Your task to perform on an android device: Open accessibility settings Image 0: 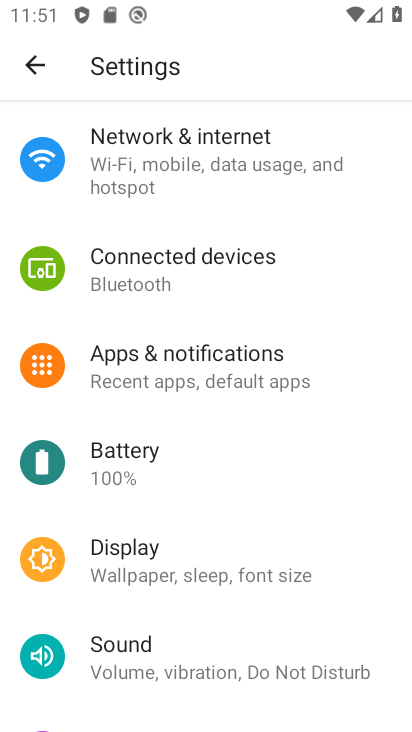
Step 0: drag from (142, 610) to (264, 118)
Your task to perform on an android device: Open accessibility settings Image 1: 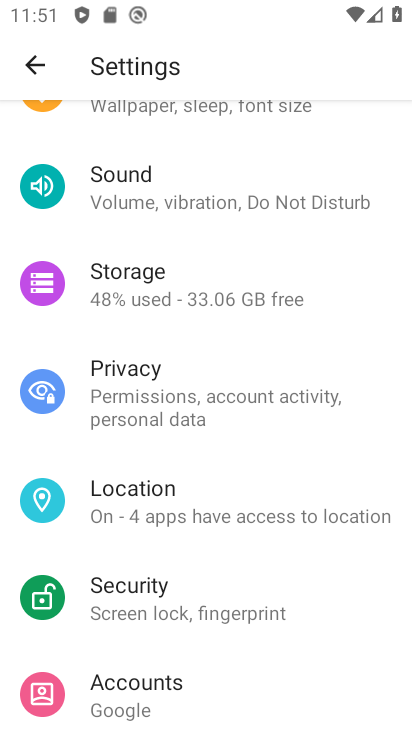
Step 1: drag from (222, 659) to (297, 133)
Your task to perform on an android device: Open accessibility settings Image 2: 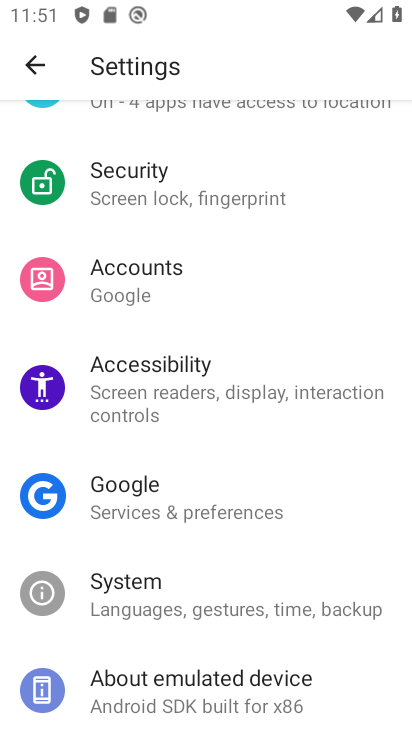
Step 2: click (142, 383)
Your task to perform on an android device: Open accessibility settings Image 3: 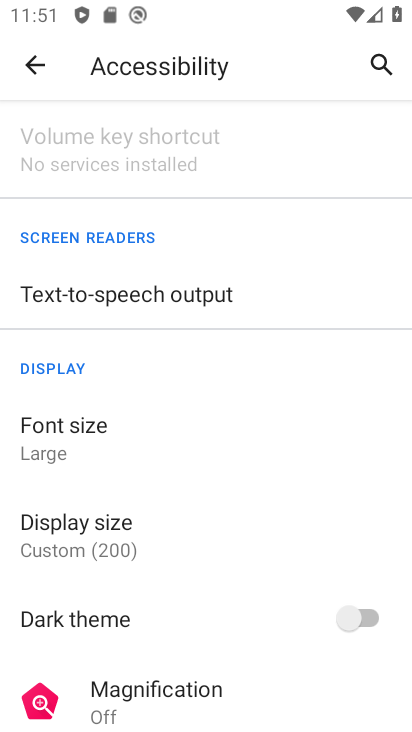
Step 3: task complete